Your task to perform on an android device: check android version Image 0: 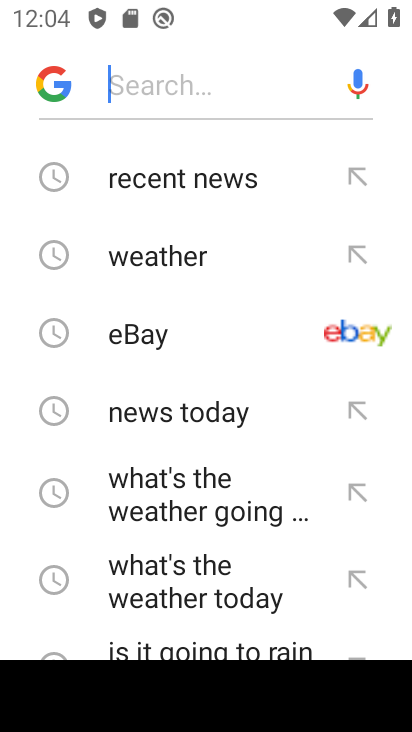
Step 0: press back button
Your task to perform on an android device: check android version Image 1: 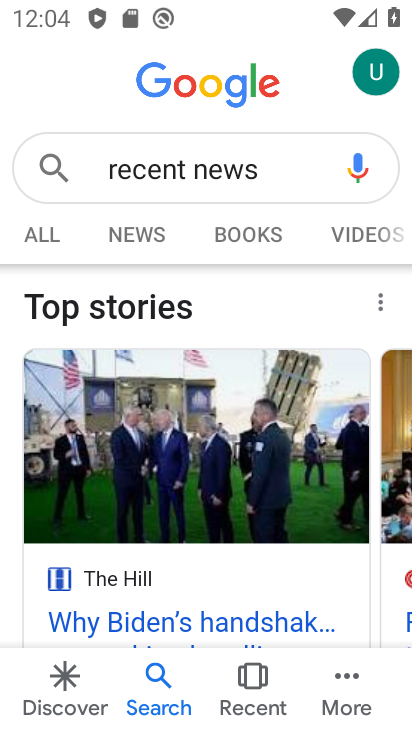
Step 1: drag from (166, 585) to (262, 28)
Your task to perform on an android device: check android version Image 2: 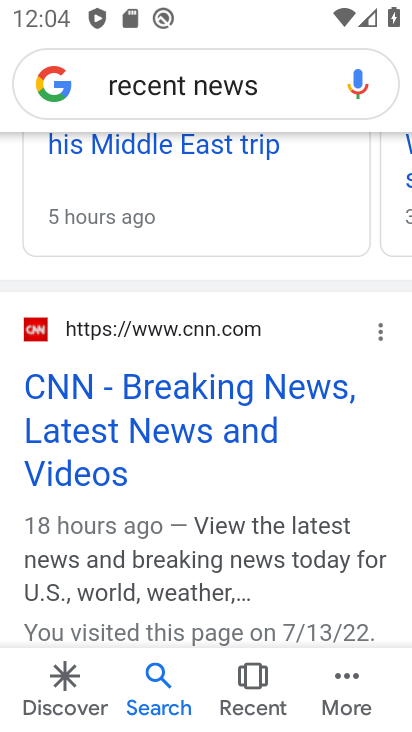
Step 2: press back button
Your task to perform on an android device: check android version Image 3: 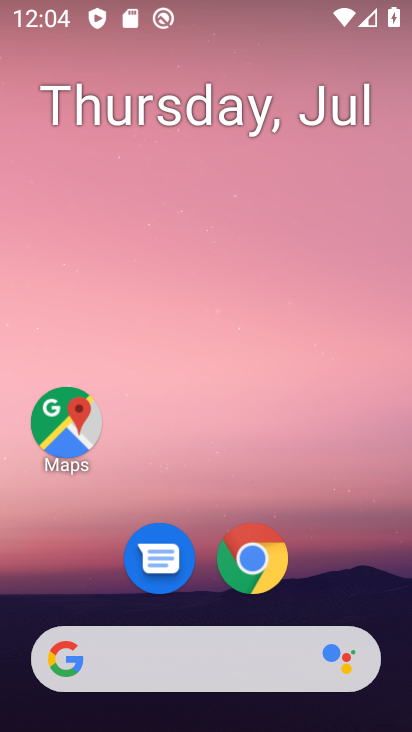
Step 3: drag from (145, 635) to (264, 59)
Your task to perform on an android device: check android version Image 4: 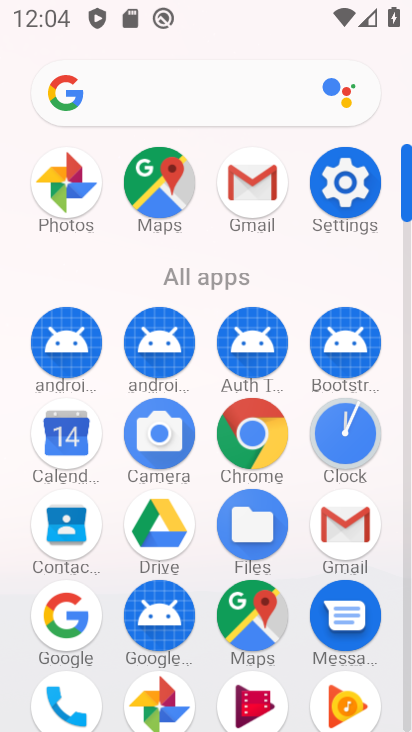
Step 4: click (379, 171)
Your task to perform on an android device: check android version Image 5: 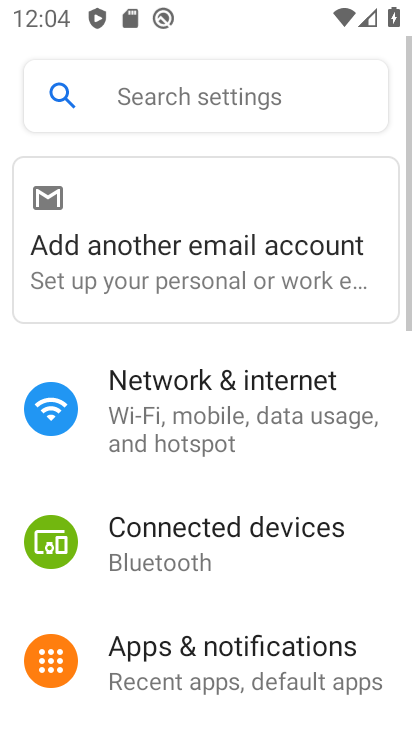
Step 5: click (173, 105)
Your task to perform on an android device: check android version Image 6: 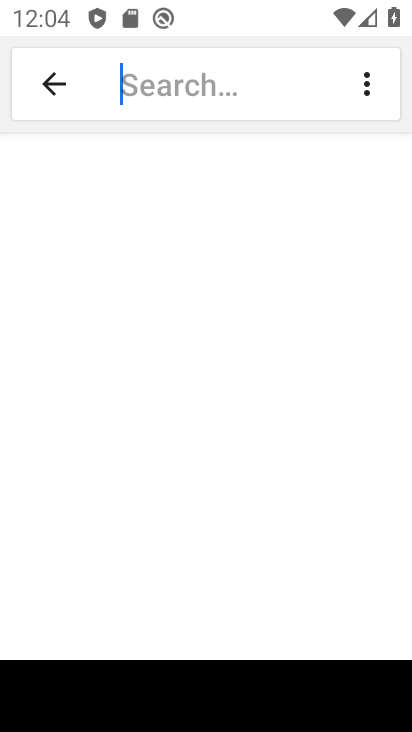
Step 6: click (41, 77)
Your task to perform on an android device: check android version Image 7: 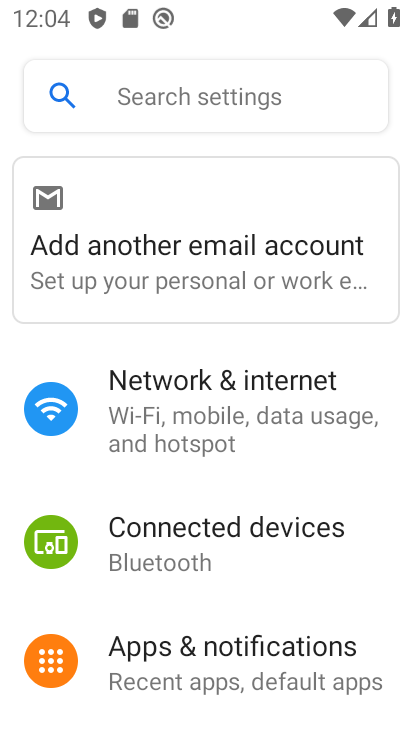
Step 7: drag from (227, 665) to (334, 23)
Your task to perform on an android device: check android version Image 8: 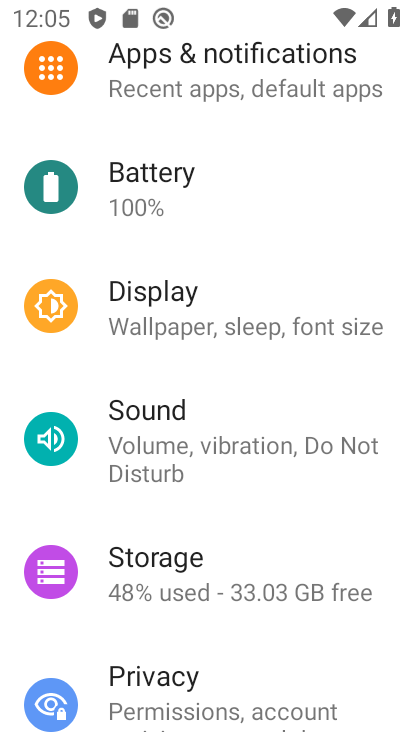
Step 8: drag from (237, 684) to (315, 15)
Your task to perform on an android device: check android version Image 9: 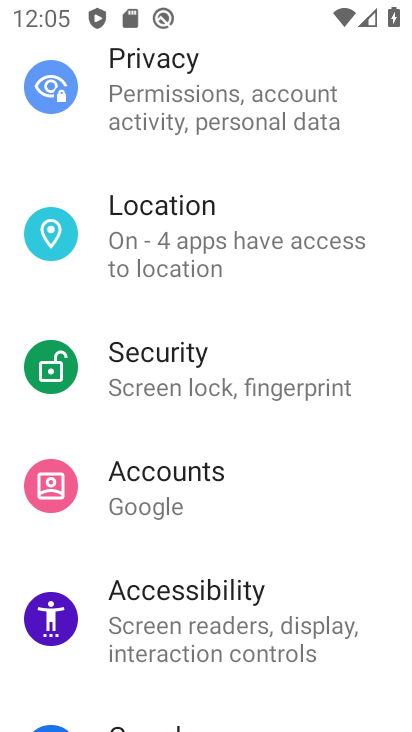
Step 9: drag from (171, 677) to (256, 91)
Your task to perform on an android device: check android version Image 10: 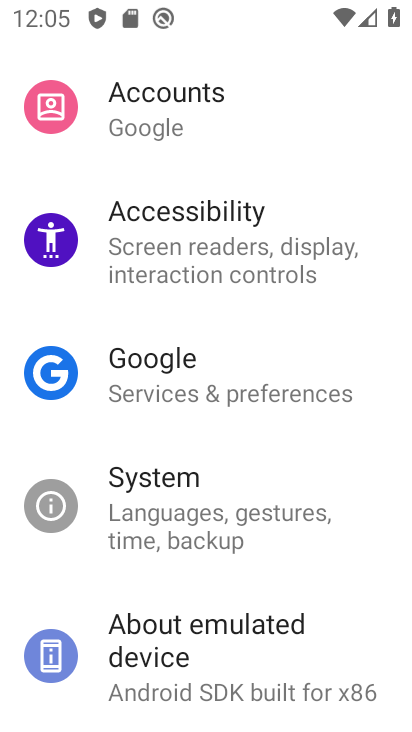
Step 10: click (202, 667)
Your task to perform on an android device: check android version Image 11: 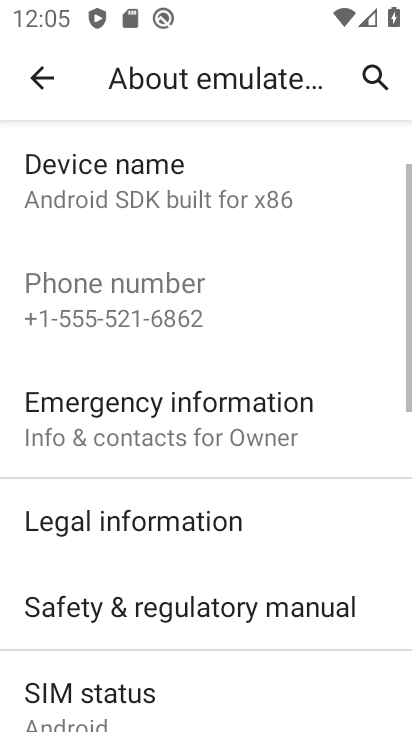
Step 11: drag from (204, 658) to (274, 8)
Your task to perform on an android device: check android version Image 12: 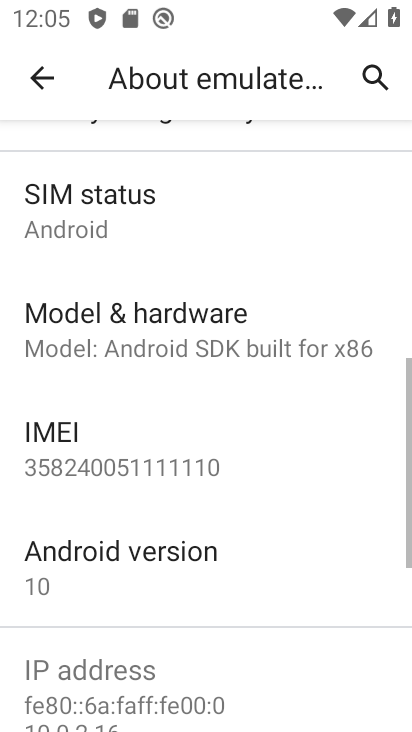
Step 12: click (109, 574)
Your task to perform on an android device: check android version Image 13: 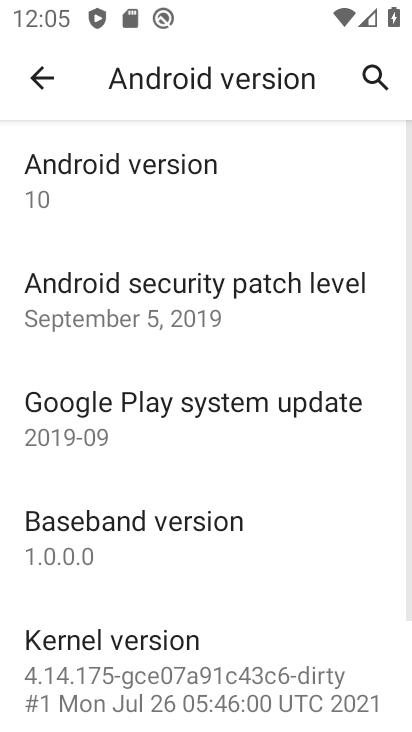
Step 13: task complete